Your task to perform on an android device: toggle show notifications on the lock screen Image 0: 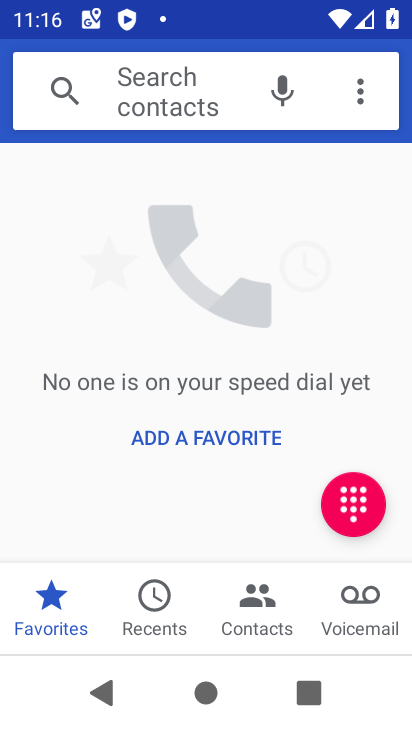
Step 0: press home button
Your task to perform on an android device: toggle show notifications on the lock screen Image 1: 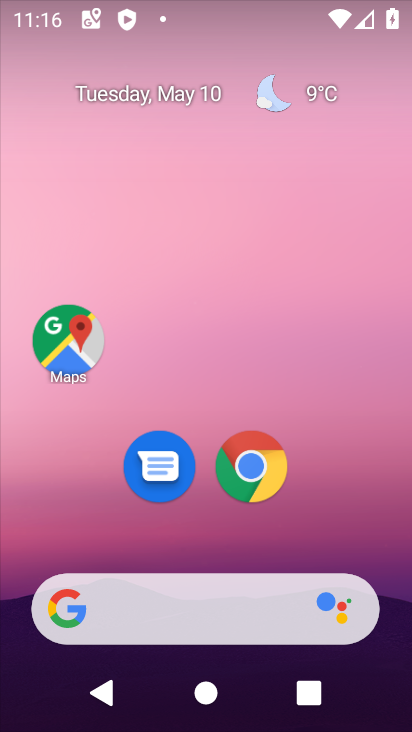
Step 1: drag from (211, 528) to (189, 45)
Your task to perform on an android device: toggle show notifications on the lock screen Image 2: 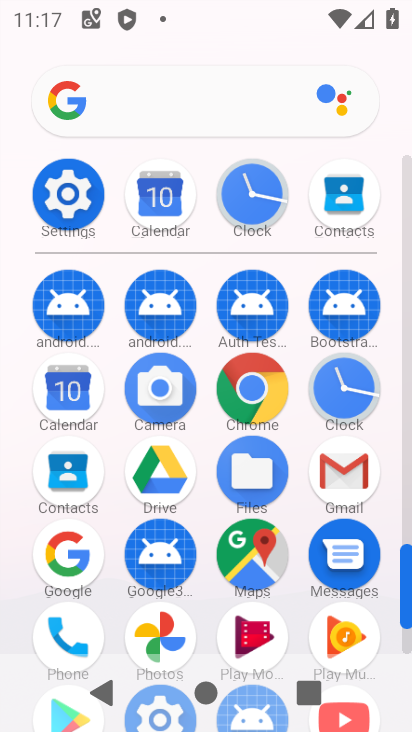
Step 2: click (57, 188)
Your task to perform on an android device: toggle show notifications on the lock screen Image 3: 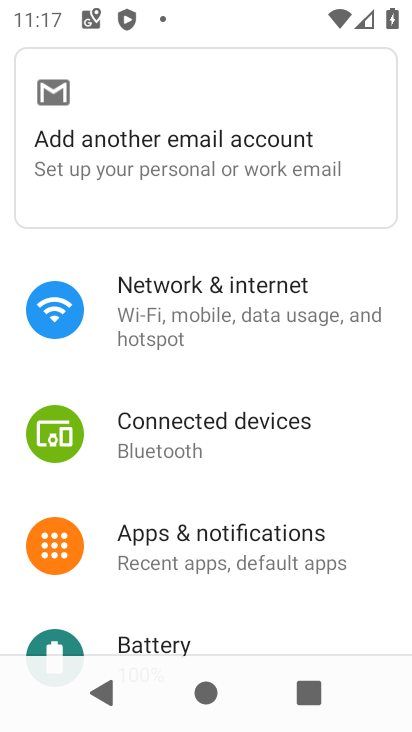
Step 3: click (195, 539)
Your task to perform on an android device: toggle show notifications on the lock screen Image 4: 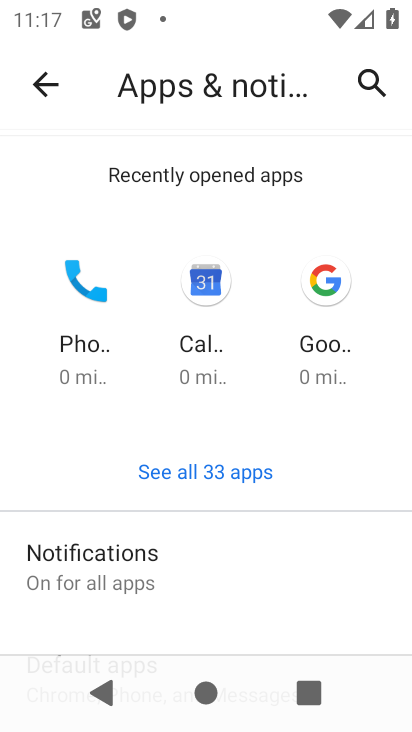
Step 4: click (238, 579)
Your task to perform on an android device: toggle show notifications on the lock screen Image 5: 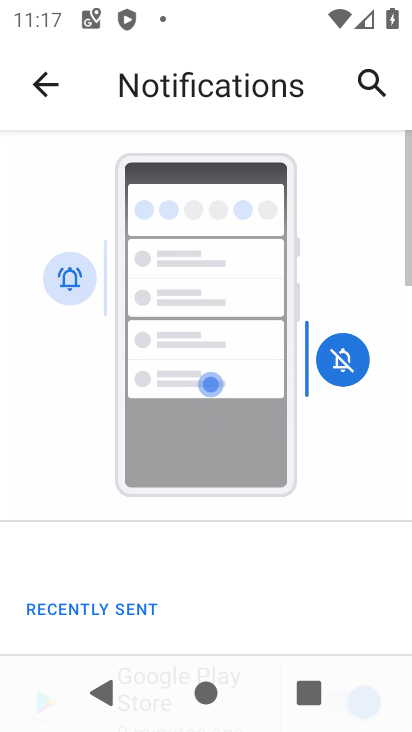
Step 5: drag from (235, 590) to (249, 164)
Your task to perform on an android device: toggle show notifications on the lock screen Image 6: 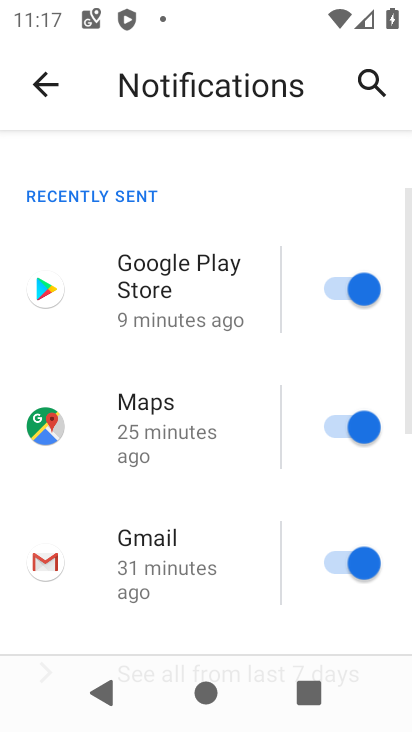
Step 6: drag from (205, 605) to (232, 317)
Your task to perform on an android device: toggle show notifications on the lock screen Image 7: 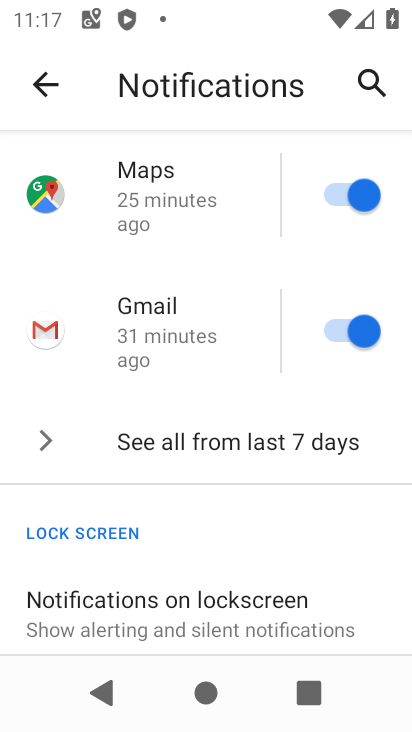
Step 7: drag from (177, 528) to (173, 302)
Your task to perform on an android device: toggle show notifications on the lock screen Image 8: 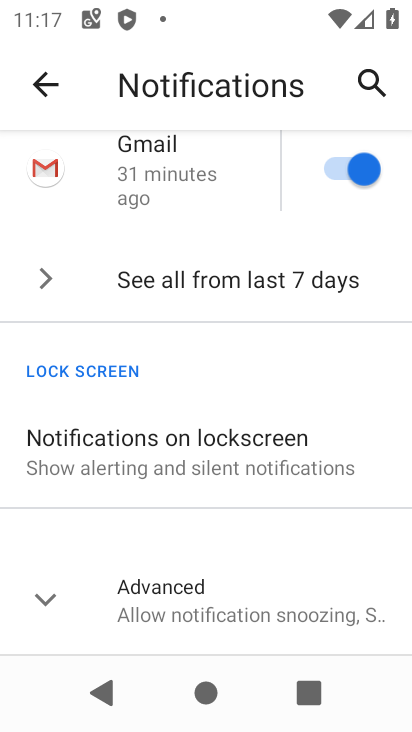
Step 8: click (172, 440)
Your task to perform on an android device: toggle show notifications on the lock screen Image 9: 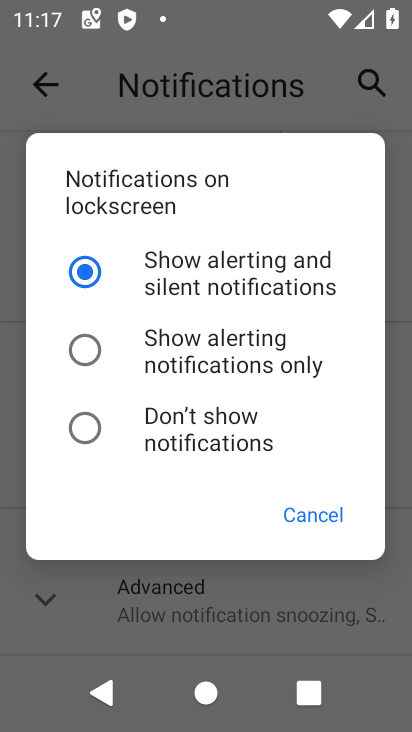
Step 9: click (184, 356)
Your task to perform on an android device: toggle show notifications on the lock screen Image 10: 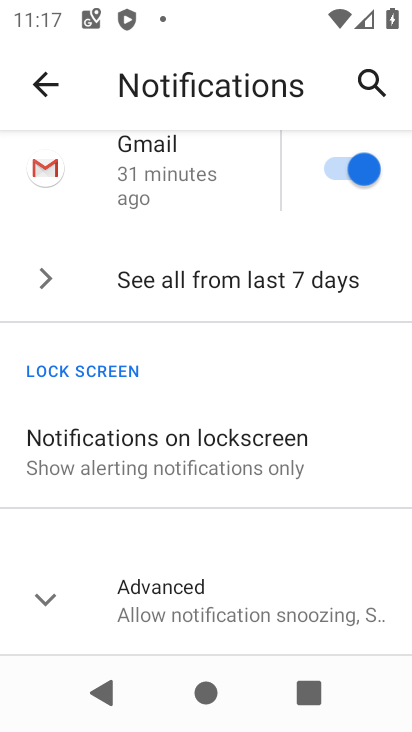
Step 10: task complete